Your task to perform on an android device: see sites visited before in the chrome app Image 0: 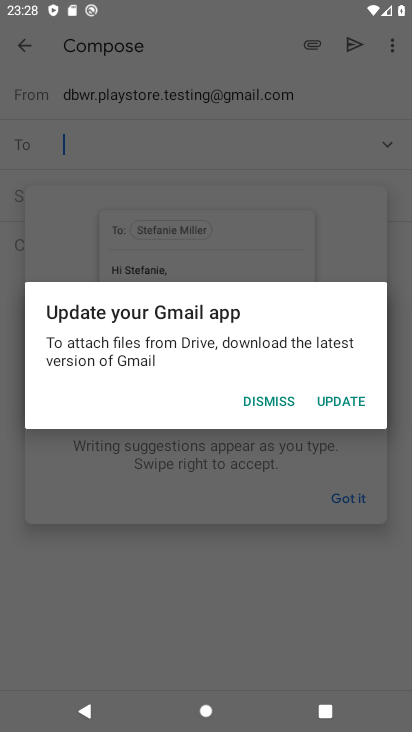
Step 0: press home button
Your task to perform on an android device: see sites visited before in the chrome app Image 1: 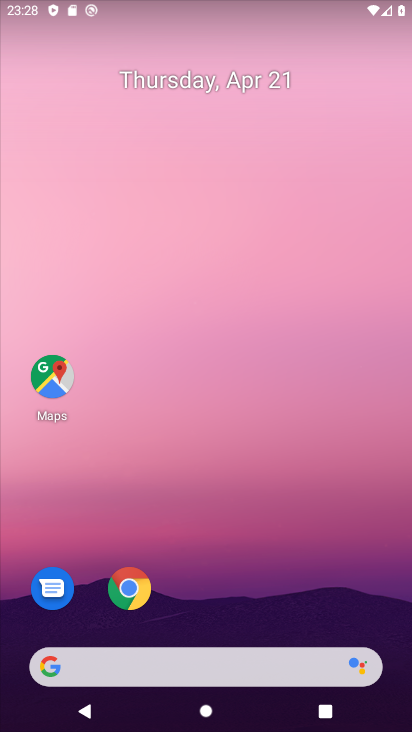
Step 1: click (132, 588)
Your task to perform on an android device: see sites visited before in the chrome app Image 2: 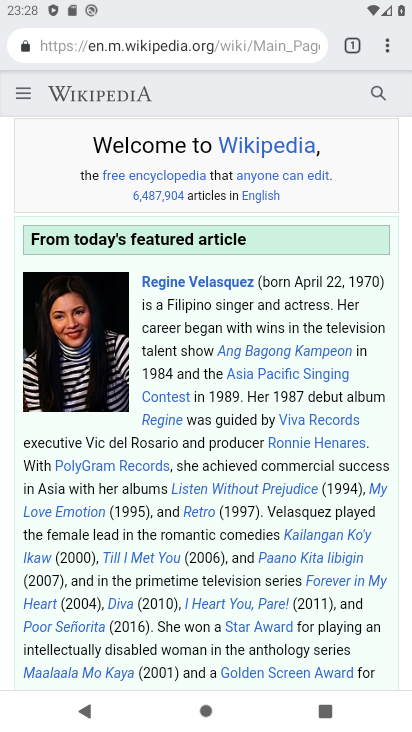
Step 2: click (394, 48)
Your task to perform on an android device: see sites visited before in the chrome app Image 3: 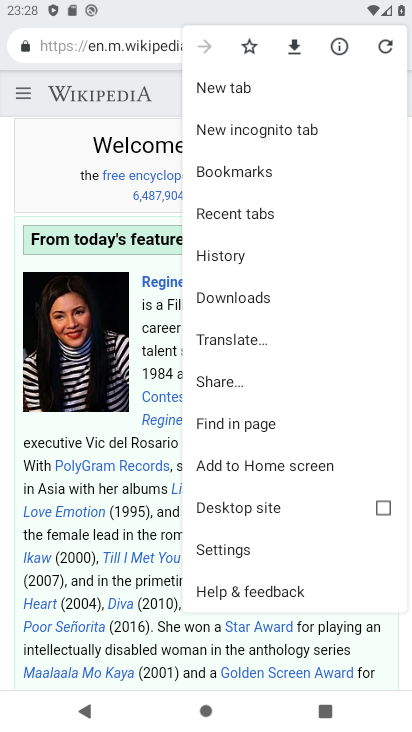
Step 3: click (233, 252)
Your task to perform on an android device: see sites visited before in the chrome app Image 4: 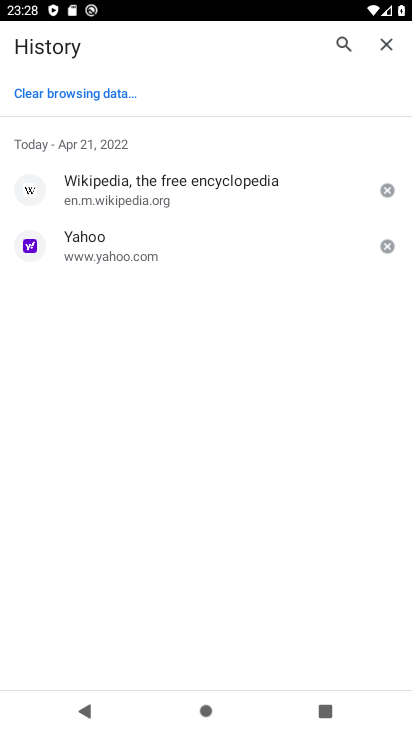
Step 4: task complete